Your task to perform on an android device: clear history in the chrome app Image 0: 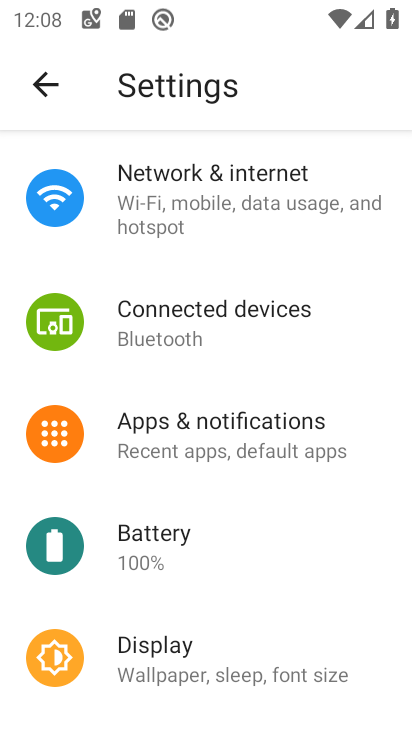
Step 0: press home button
Your task to perform on an android device: clear history in the chrome app Image 1: 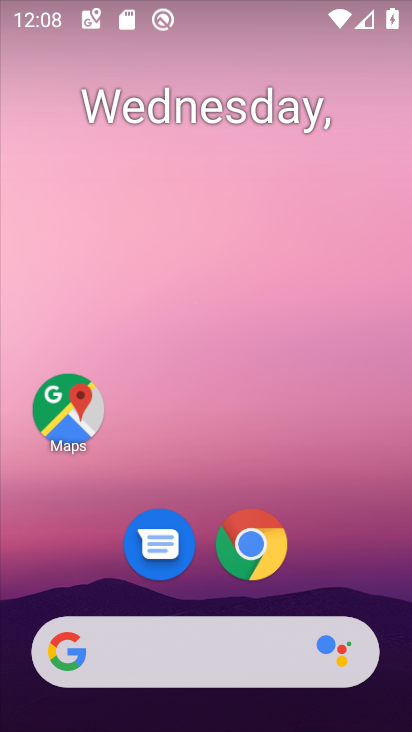
Step 1: drag from (208, 587) to (160, 175)
Your task to perform on an android device: clear history in the chrome app Image 2: 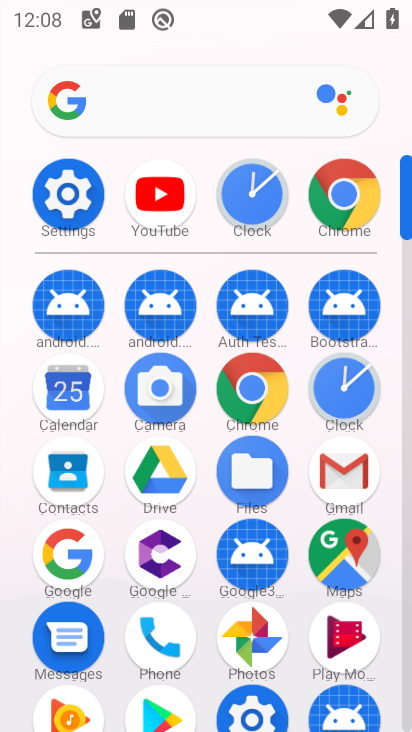
Step 2: click (270, 401)
Your task to perform on an android device: clear history in the chrome app Image 3: 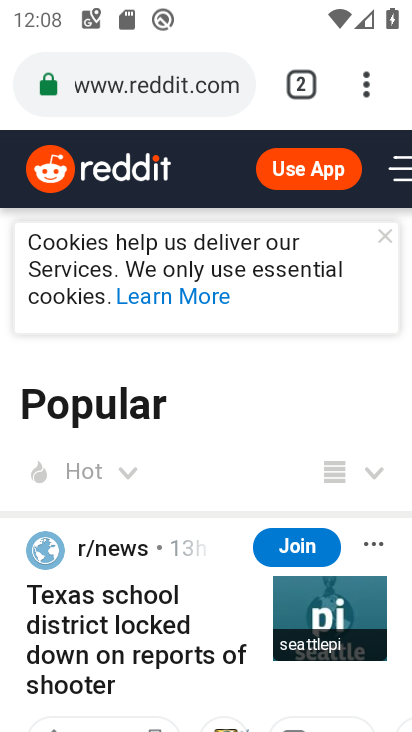
Step 3: click (361, 90)
Your task to perform on an android device: clear history in the chrome app Image 4: 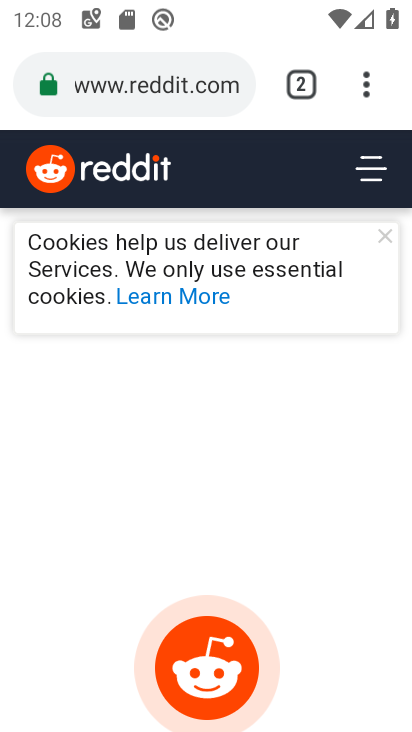
Step 4: click (373, 98)
Your task to perform on an android device: clear history in the chrome app Image 5: 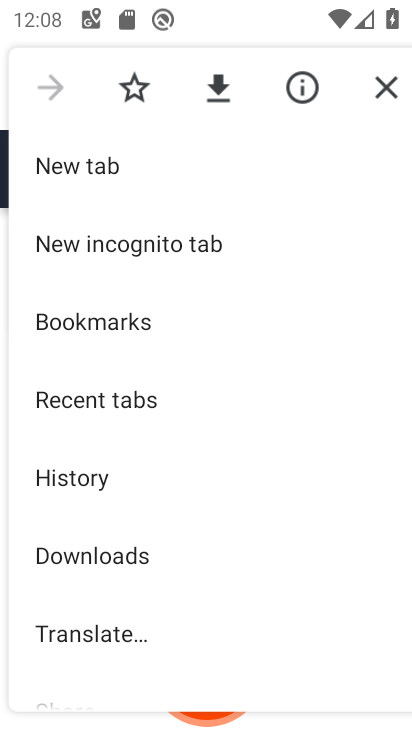
Step 5: click (99, 492)
Your task to perform on an android device: clear history in the chrome app Image 6: 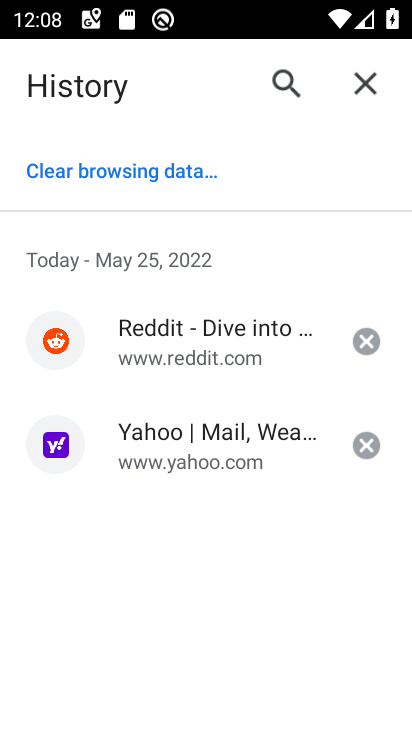
Step 6: click (161, 179)
Your task to perform on an android device: clear history in the chrome app Image 7: 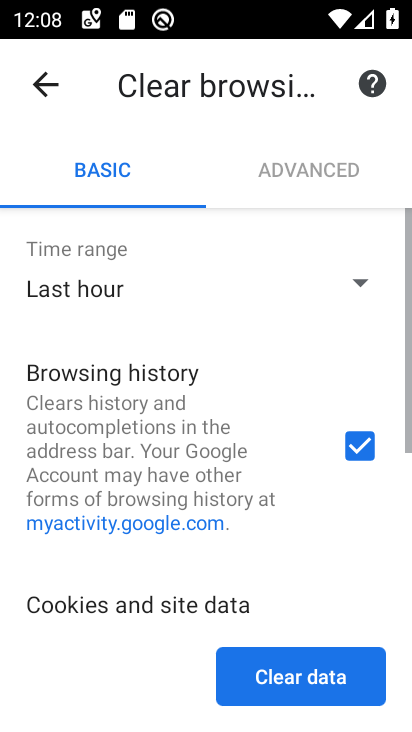
Step 7: click (294, 688)
Your task to perform on an android device: clear history in the chrome app Image 8: 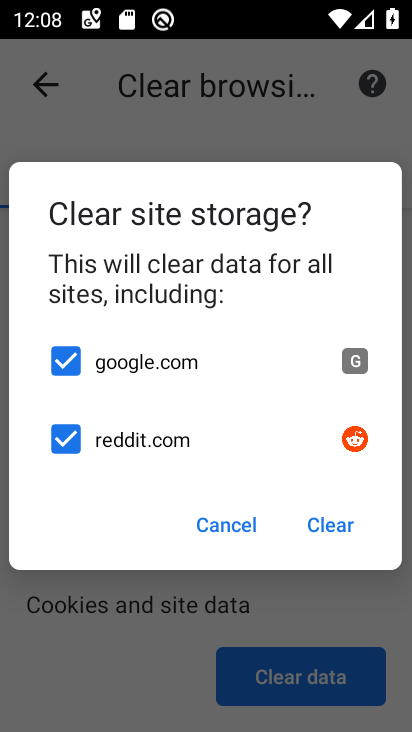
Step 8: click (325, 522)
Your task to perform on an android device: clear history in the chrome app Image 9: 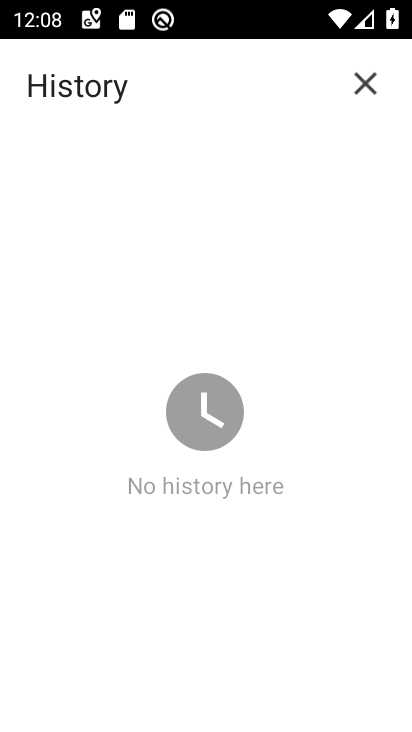
Step 9: task complete